Your task to perform on an android device: set an alarm Image 0: 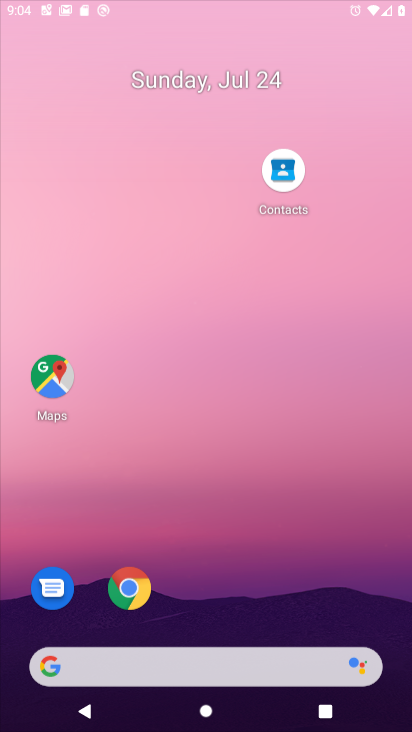
Step 0: press home button
Your task to perform on an android device: set an alarm Image 1: 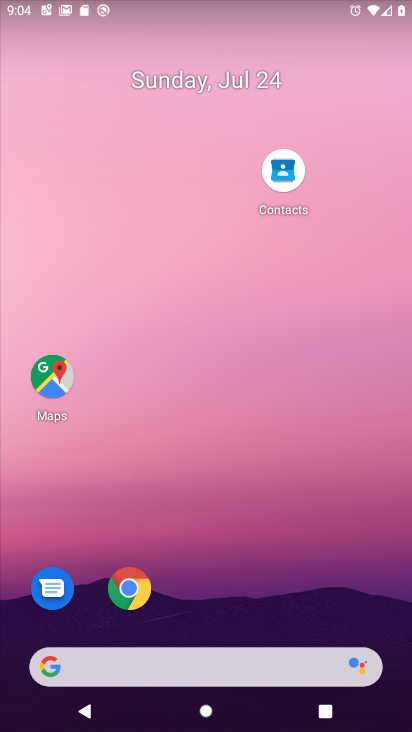
Step 1: drag from (206, 629) to (252, 72)
Your task to perform on an android device: set an alarm Image 2: 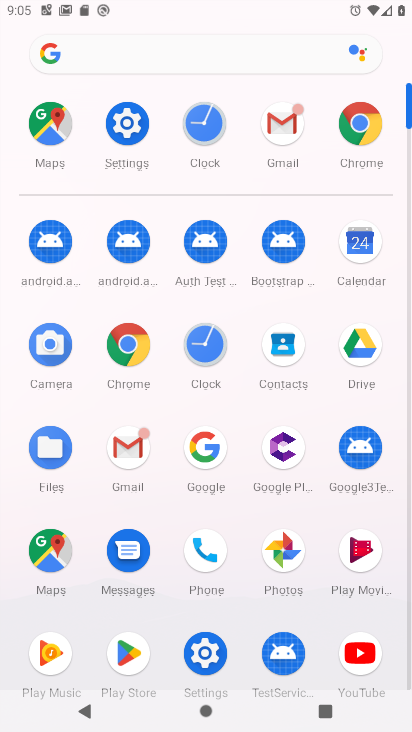
Step 2: click (201, 117)
Your task to perform on an android device: set an alarm Image 3: 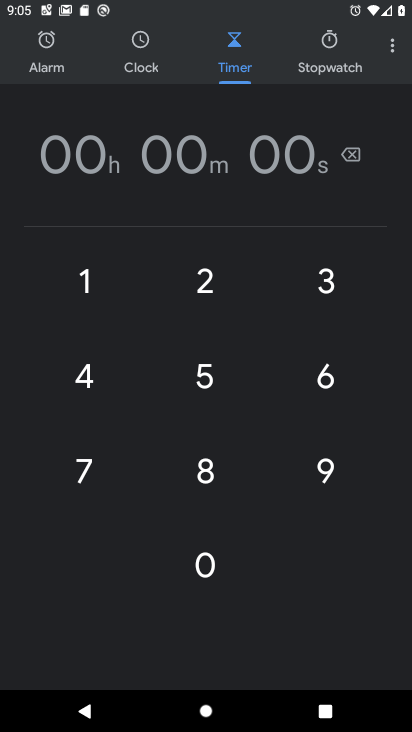
Step 3: click (43, 41)
Your task to perform on an android device: set an alarm Image 4: 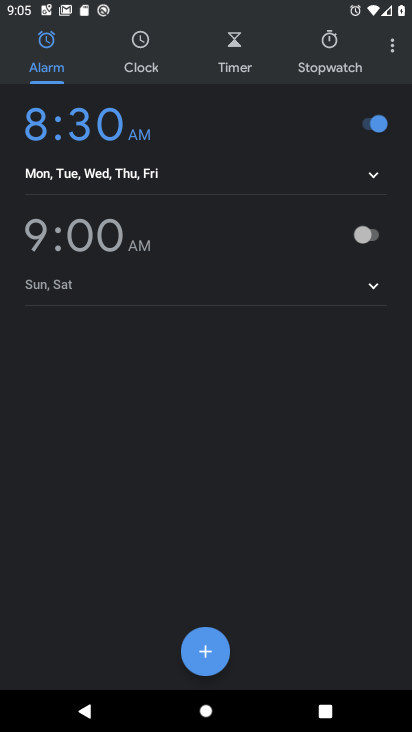
Step 4: click (364, 230)
Your task to perform on an android device: set an alarm Image 5: 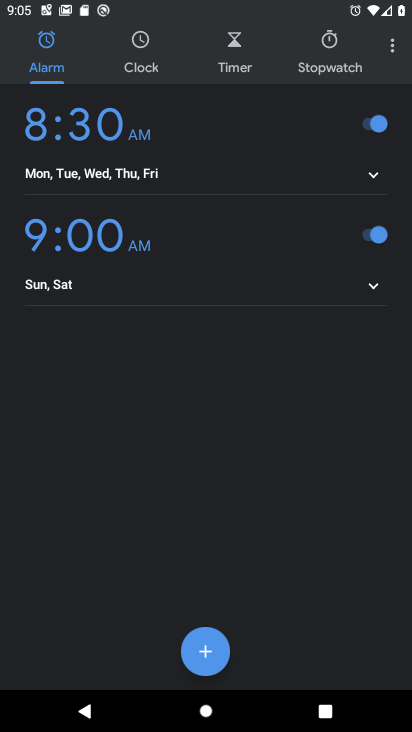
Step 5: task complete